Your task to perform on an android device: turn on priority inbox in the gmail app Image 0: 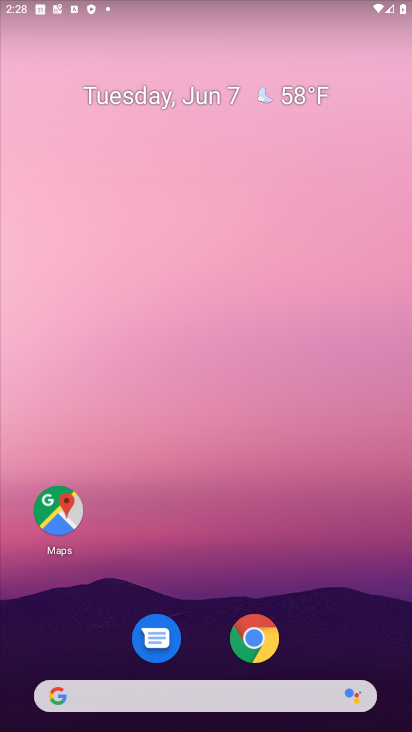
Step 0: drag from (217, 653) to (280, 263)
Your task to perform on an android device: turn on priority inbox in the gmail app Image 1: 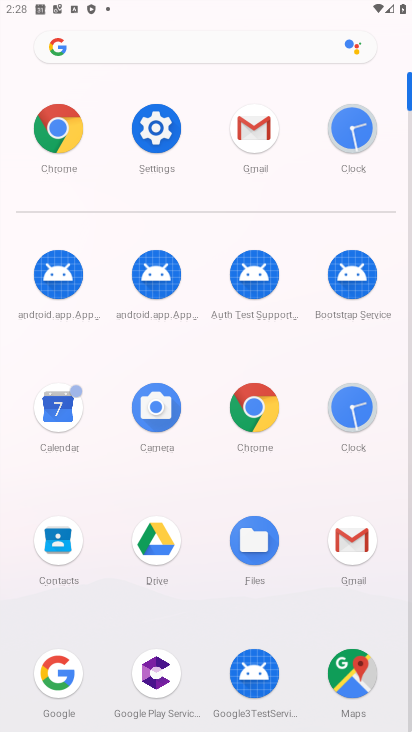
Step 1: click (358, 542)
Your task to perform on an android device: turn on priority inbox in the gmail app Image 2: 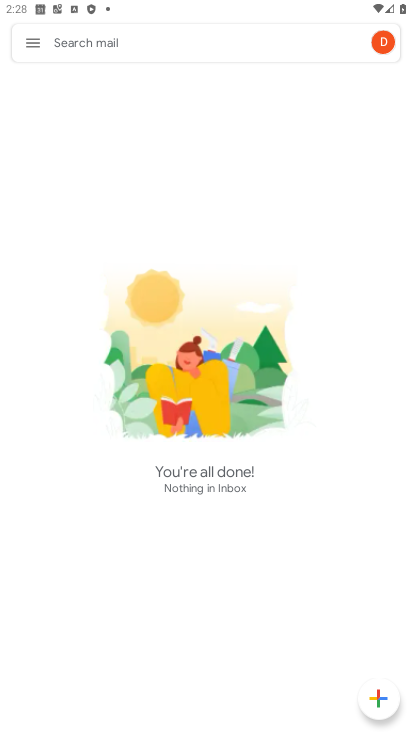
Step 2: click (42, 41)
Your task to perform on an android device: turn on priority inbox in the gmail app Image 3: 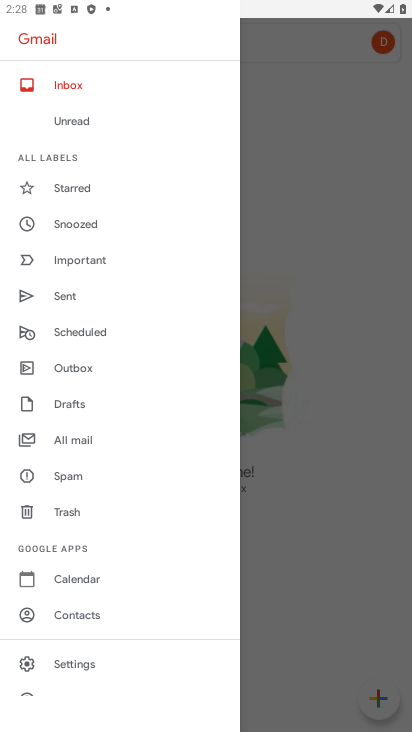
Step 3: click (76, 674)
Your task to perform on an android device: turn on priority inbox in the gmail app Image 4: 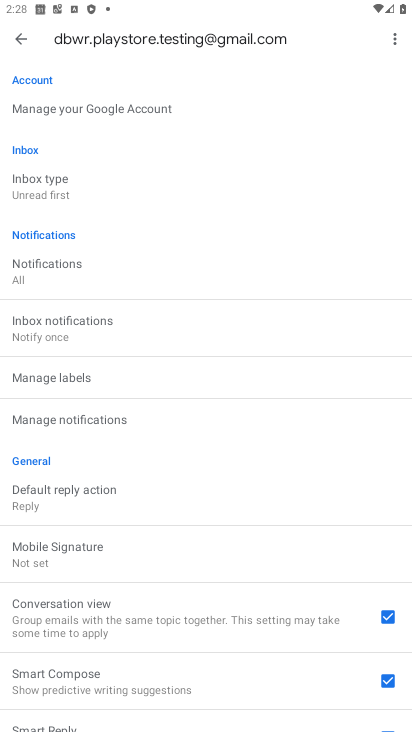
Step 4: click (93, 181)
Your task to perform on an android device: turn on priority inbox in the gmail app Image 5: 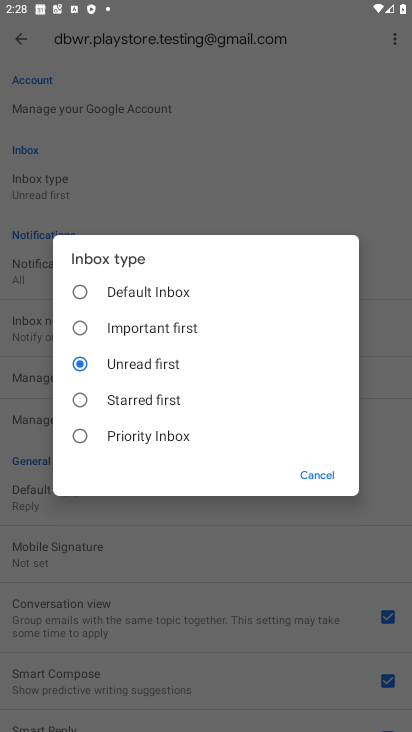
Step 5: click (136, 414)
Your task to perform on an android device: turn on priority inbox in the gmail app Image 6: 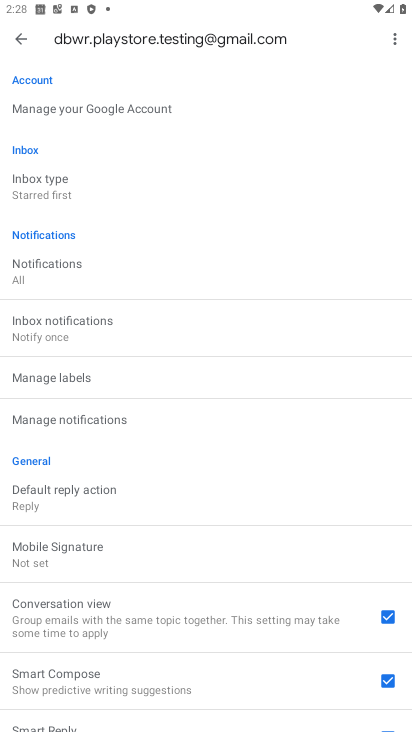
Step 6: click (77, 192)
Your task to perform on an android device: turn on priority inbox in the gmail app Image 7: 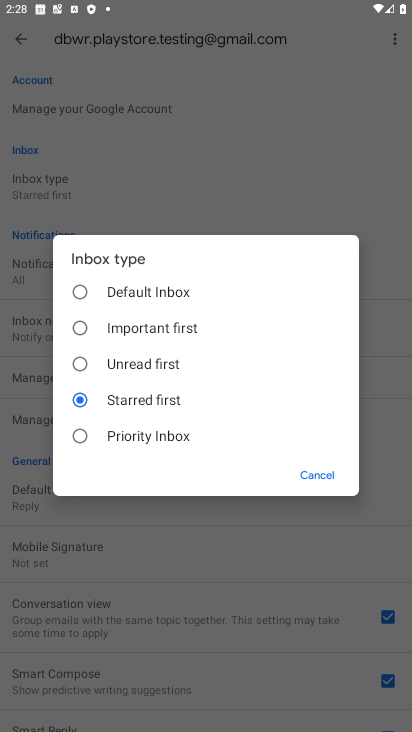
Step 7: click (92, 440)
Your task to perform on an android device: turn on priority inbox in the gmail app Image 8: 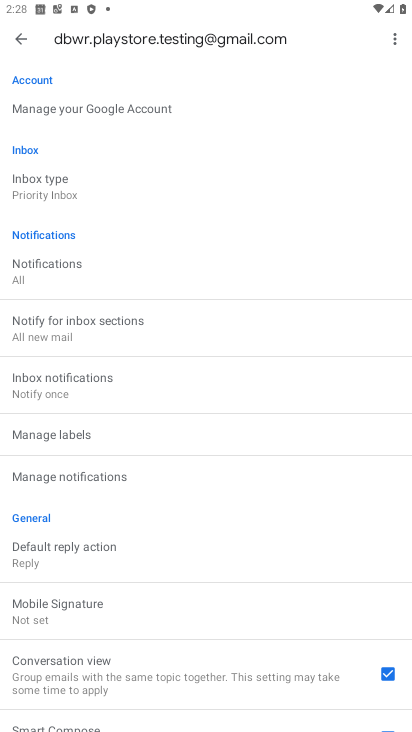
Step 8: task complete